Your task to perform on an android device: What's the weather going to be tomorrow? Image 0: 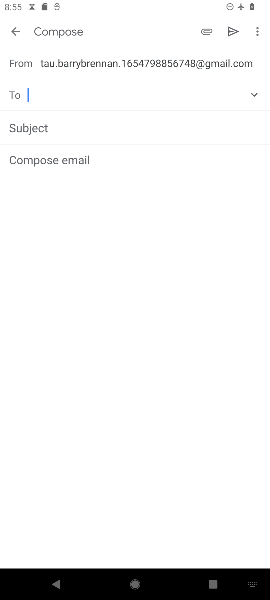
Step 0: press home button
Your task to perform on an android device: What's the weather going to be tomorrow? Image 1: 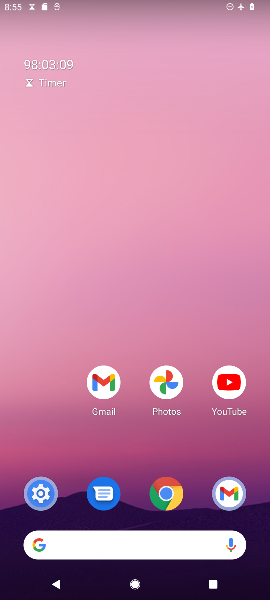
Step 1: drag from (139, 510) to (122, 63)
Your task to perform on an android device: What's the weather going to be tomorrow? Image 2: 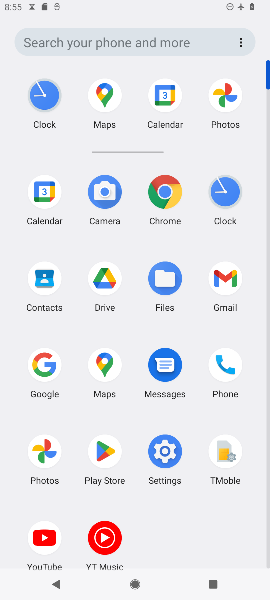
Step 2: click (177, 169)
Your task to perform on an android device: What's the weather going to be tomorrow? Image 3: 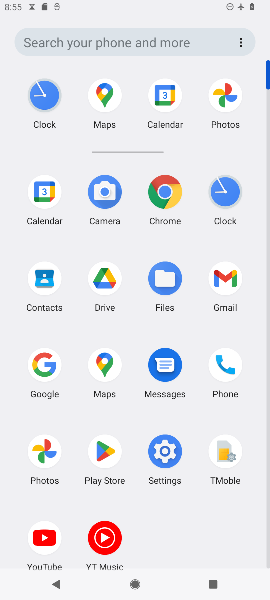
Step 3: click (154, 190)
Your task to perform on an android device: What's the weather going to be tomorrow? Image 4: 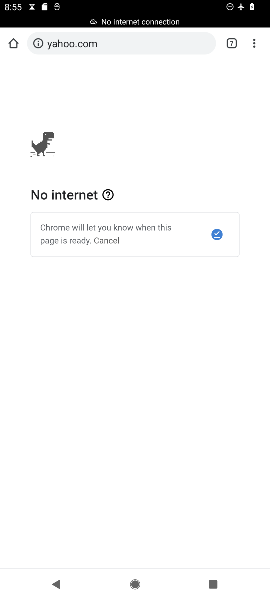
Step 4: click (255, 36)
Your task to perform on an android device: What's the weather going to be tomorrow? Image 5: 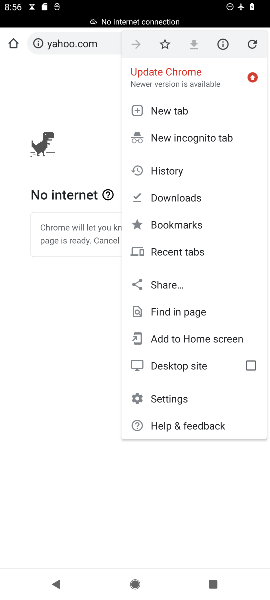
Step 5: click (151, 115)
Your task to perform on an android device: What's the weather going to be tomorrow? Image 6: 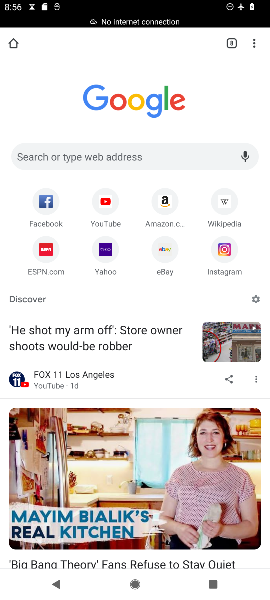
Step 6: click (115, 151)
Your task to perform on an android device: What's the weather going to be tomorrow? Image 7: 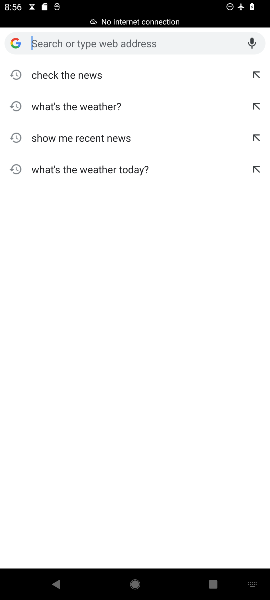
Step 7: type "What's the weather going to be tomorrow? "
Your task to perform on an android device: What's the weather going to be tomorrow? Image 8: 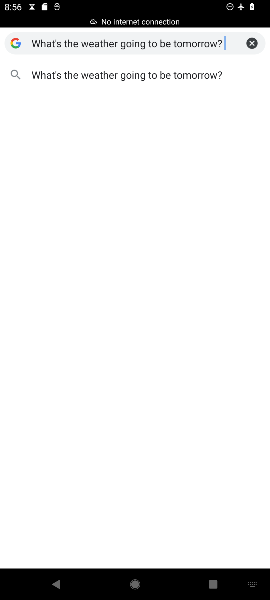
Step 8: click (49, 79)
Your task to perform on an android device: What's the weather going to be tomorrow? Image 9: 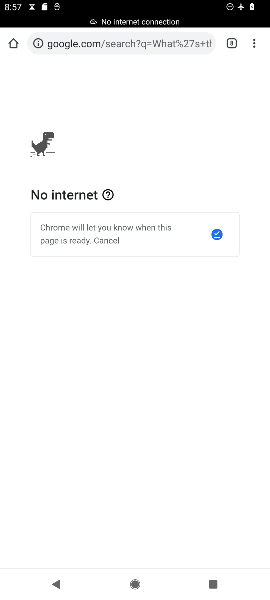
Step 9: task complete